Your task to perform on an android device: make emails show in primary in the gmail app Image 0: 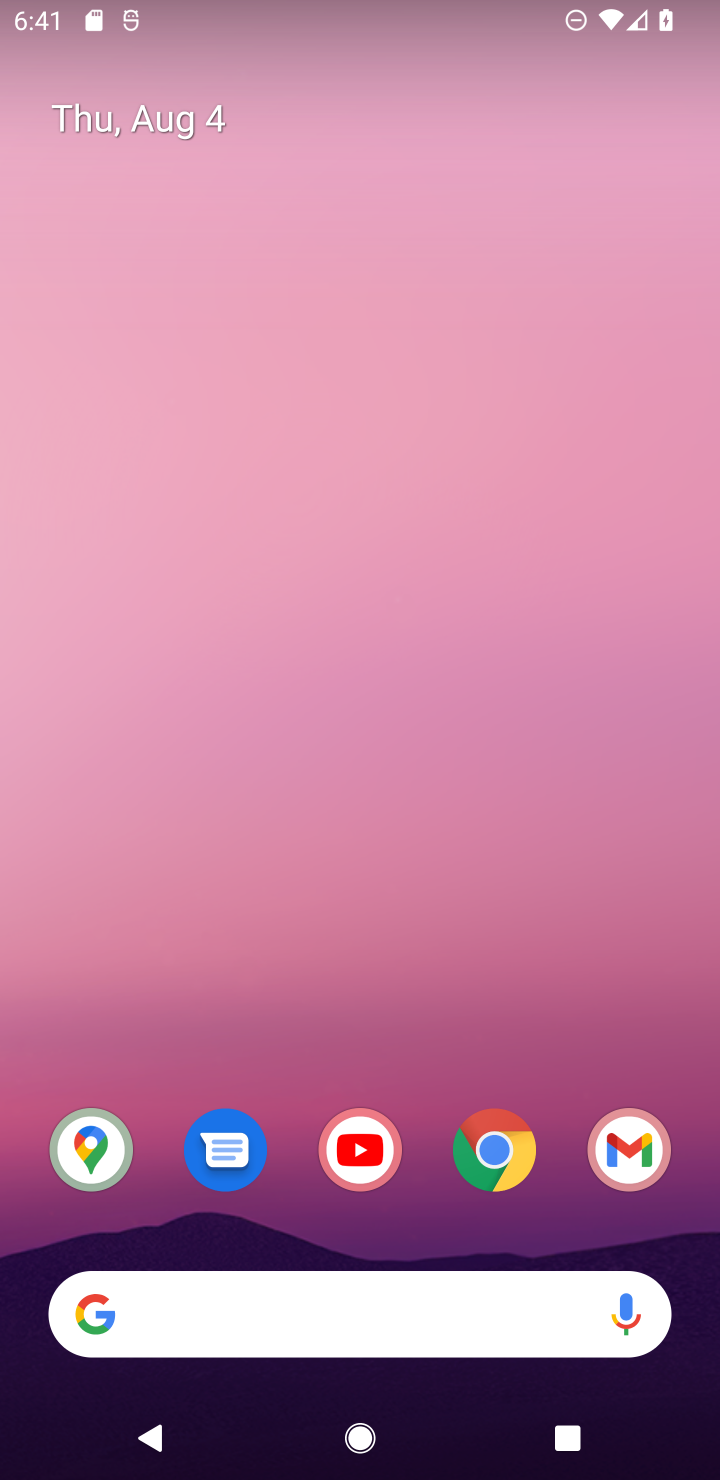
Step 0: drag from (323, 1260) to (221, 41)
Your task to perform on an android device: make emails show in primary in the gmail app Image 1: 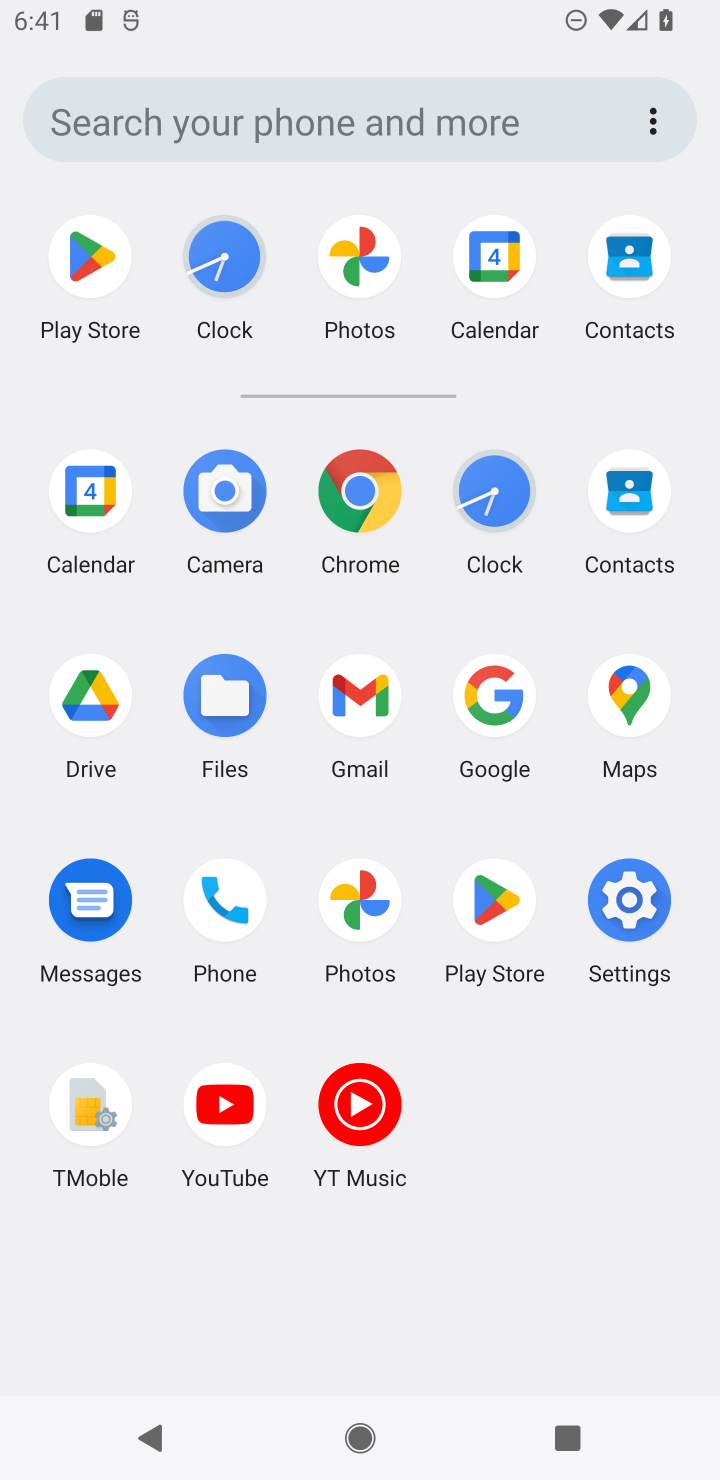
Step 1: click (336, 695)
Your task to perform on an android device: make emails show in primary in the gmail app Image 2: 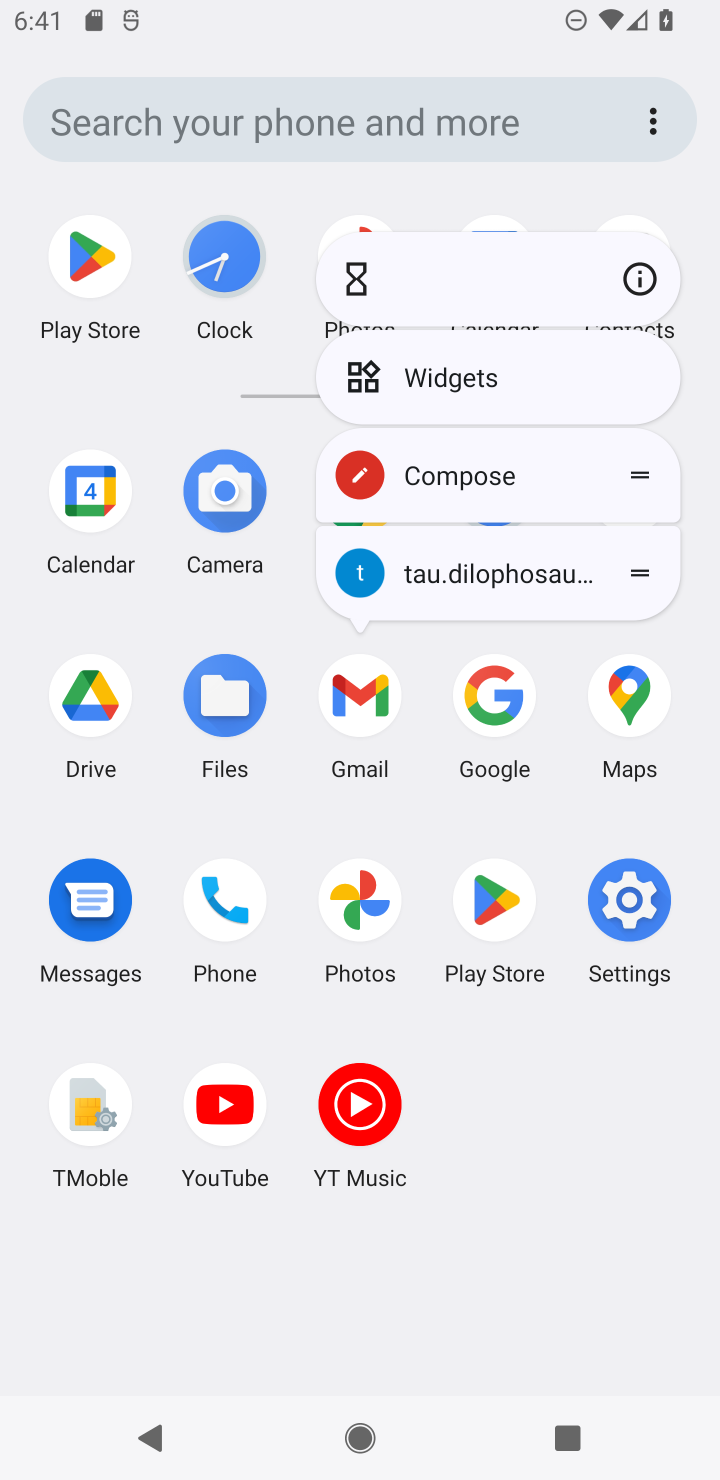
Step 2: click (337, 689)
Your task to perform on an android device: make emails show in primary in the gmail app Image 3: 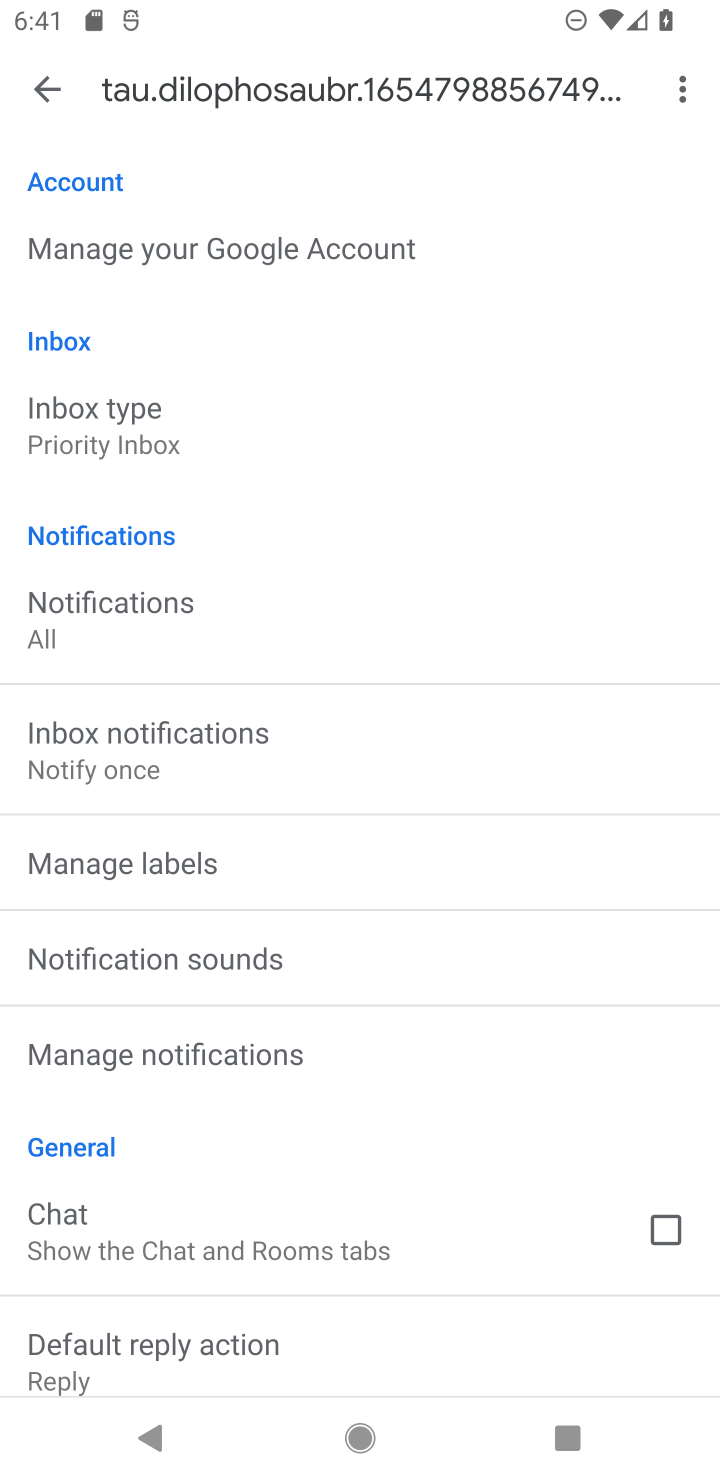
Step 3: click (156, 455)
Your task to perform on an android device: make emails show in primary in the gmail app Image 4: 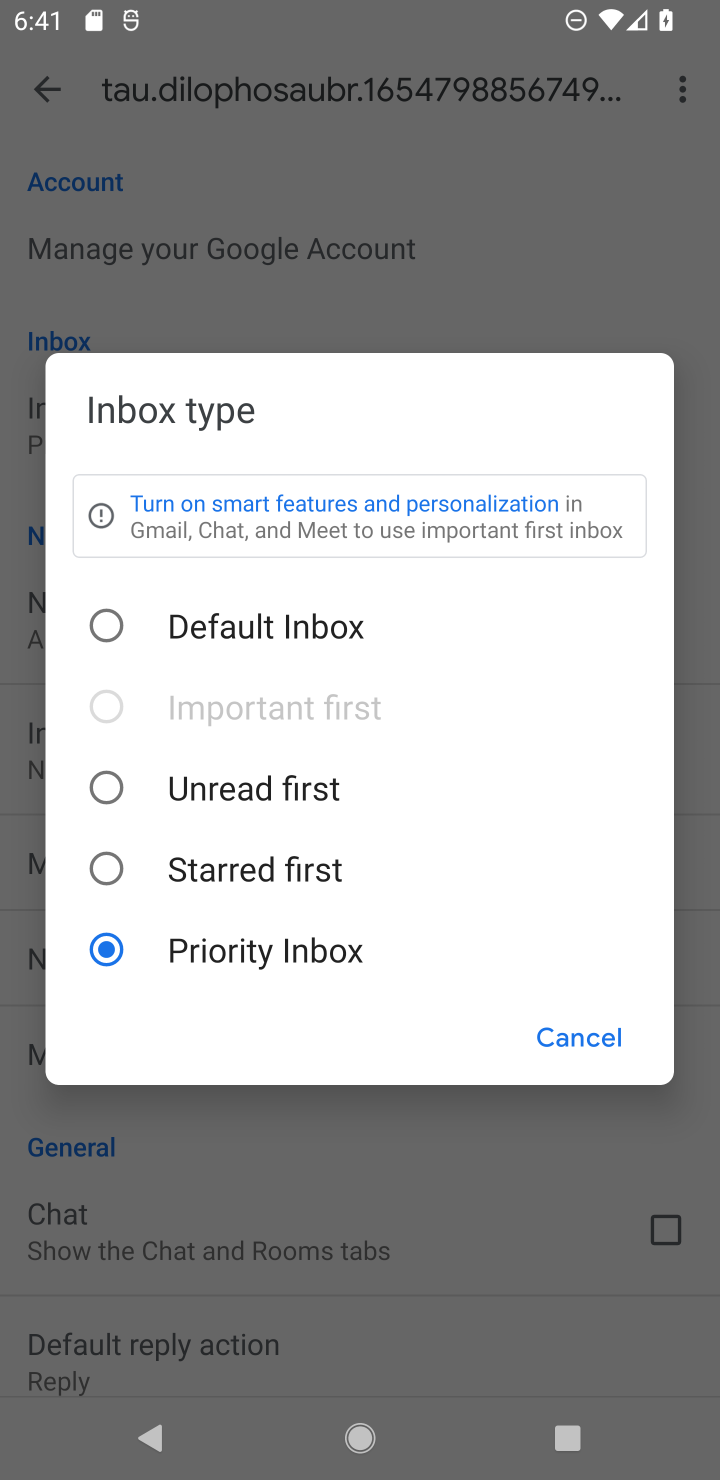
Step 4: click (96, 623)
Your task to perform on an android device: make emails show in primary in the gmail app Image 5: 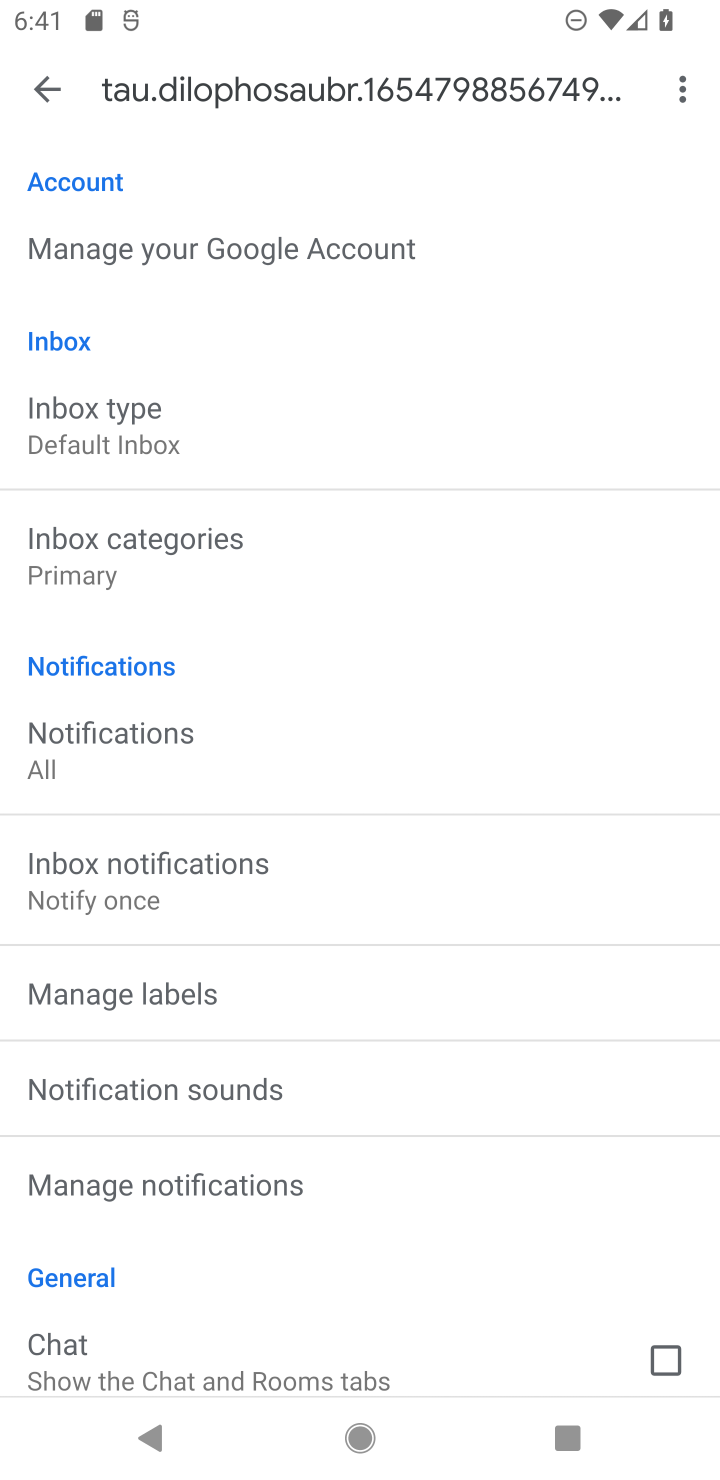
Step 5: task complete